Your task to perform on an android device: find snoozed emails in the gmail app Image 0: 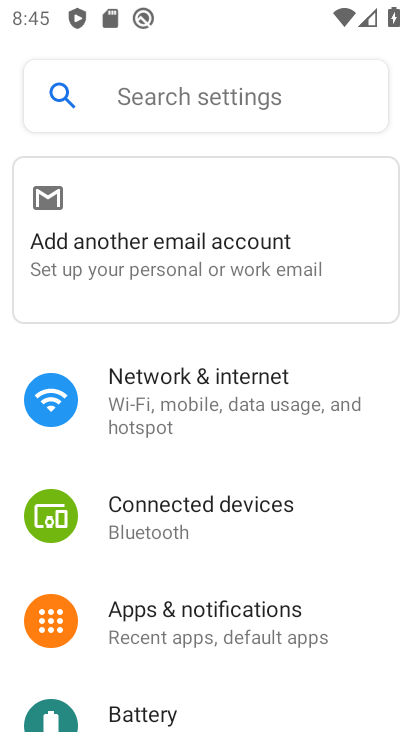
Step 0: press home button
Your task to perform on an android device: find snoozed emails in the gmail app Image 1: 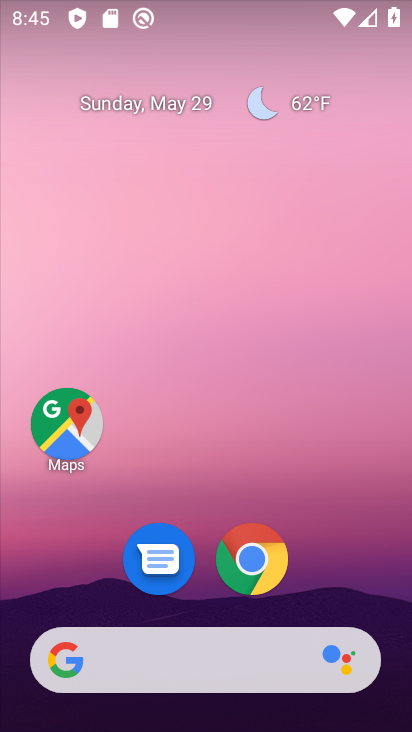
Step 1: drag from (331, 593) to (320, 238)
Your task to perform on an android device: find snoozed emails in the gmail app Image 2: 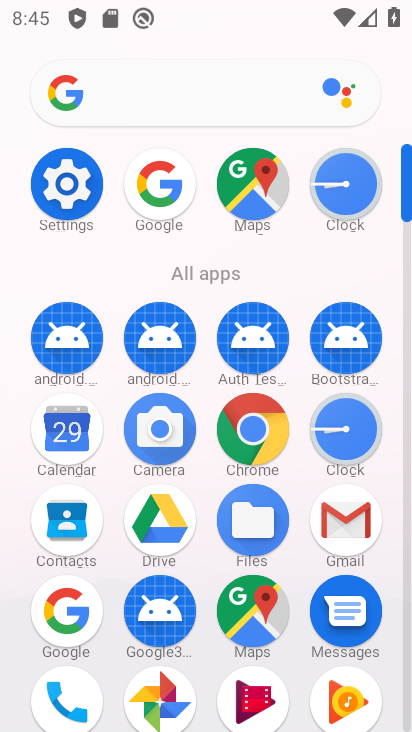
Step 2: click (335, 521)
Your task to perform on an android device: find snoozed emails in the gmail app Image 3: 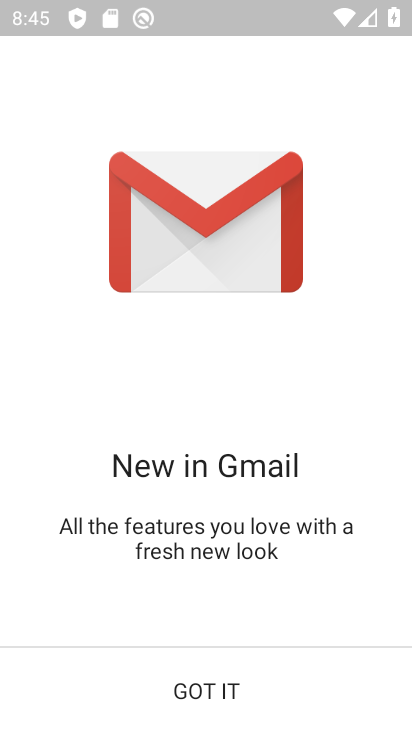
Step 3: click (220, 689)
Your task to perform on an android device: find snoozed emails in the gmail app Image 4: 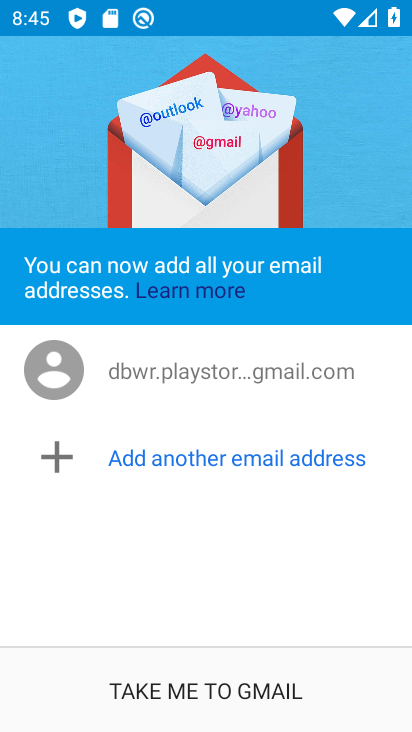
Step 4: click (221, 687)
Your task to perform on an android device: find snoozed emails in the gmail app Image 5: 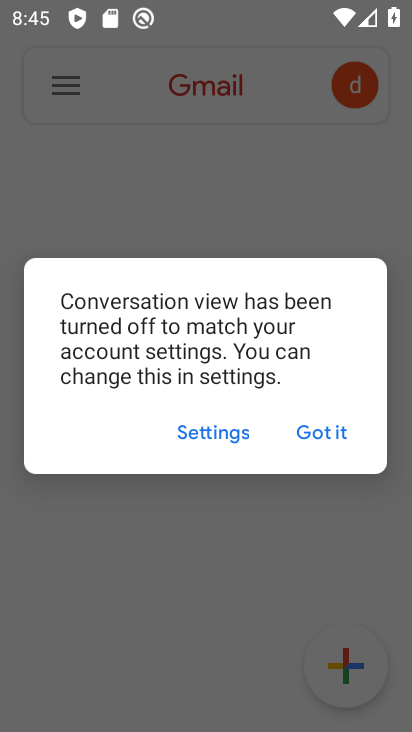
Step 5: click (317, 439)
Your task to perform on an android device: find snoozed emails in the gmail app Image 6: 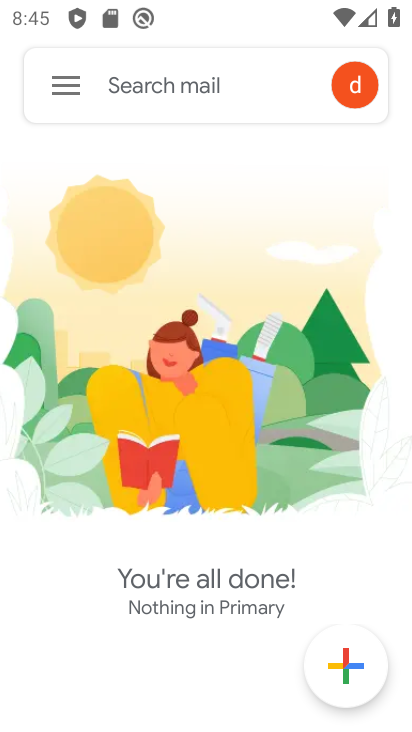
Step 6: click (75, 76)
Your task to perform on an android device: find snoozed emails in the gmail app Image 7: 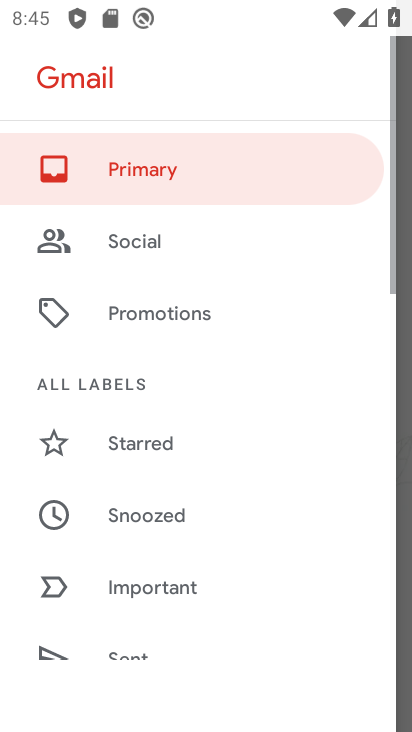
Step 7: drag from (130, 578) to (187, 224)
Your task to perform on an android device: find snoozed emails in the gmail app Image 8: 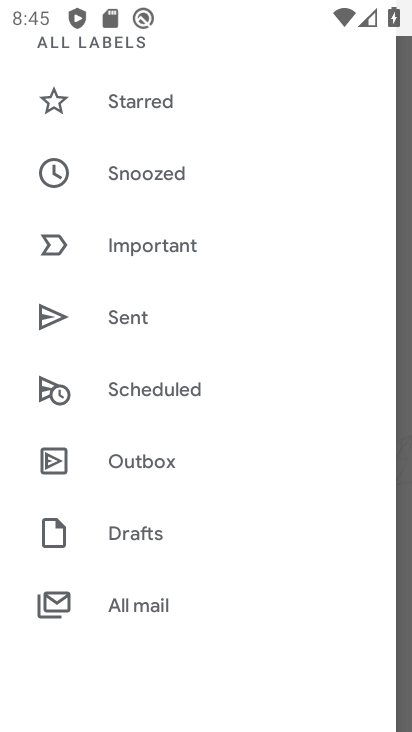
Step 8: drag from (139, 590) to (222, 178)
Your task to perform on an android device: find snoozed emails in the gmail app Image 9: 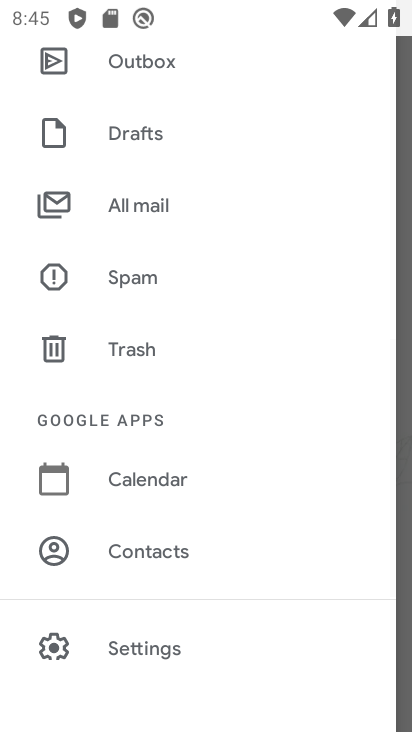
Step 9: drag from (169, 618) to (201, 259)
Your task to perform on an android device: find snoozed emails in the gmail app Image 10: 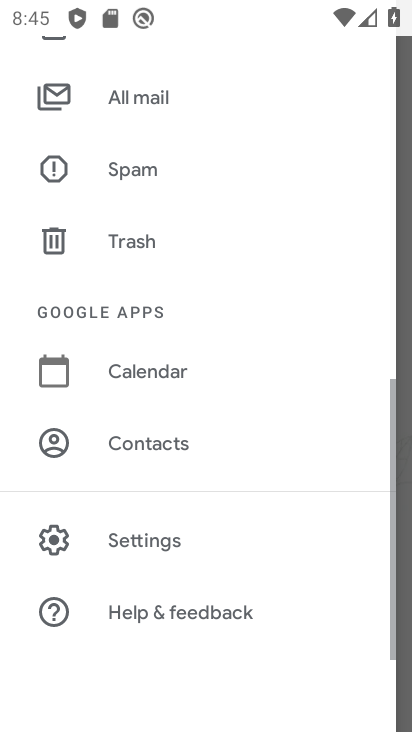
Step 10: click (164, 529)
Your task to perform on an android device: find snoozed emails in the gmail app Image 11: 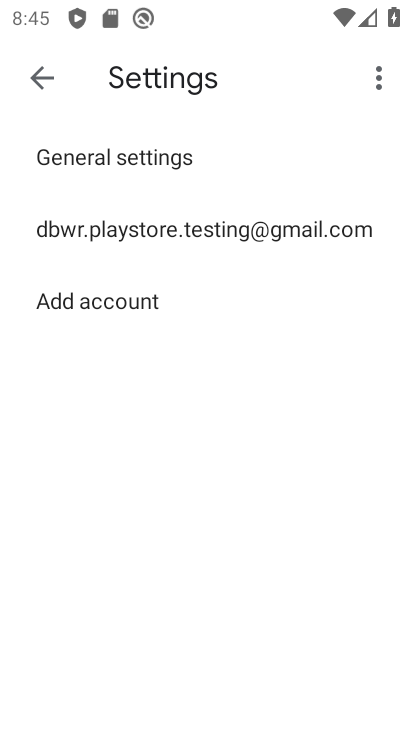
Step 11: click (118, 227)
Your task to perform on an android device: find snoozed emails in the gmail app Image 12: 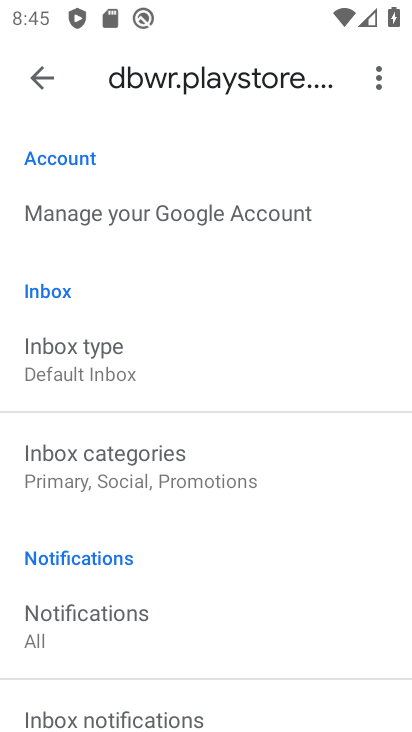
Step 12: drag from (167, 546) to (177, 383)
Your task to perform on an android device: find snoozed emails in the gmail app Image 13: 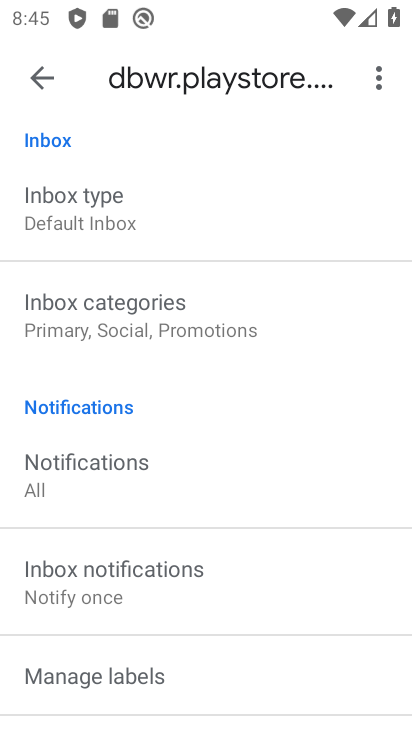
Step 13: drag from (219, 560) to (280, 322)
Your task to perform on an android device: find snoozed emails in the gmail app Image 14: 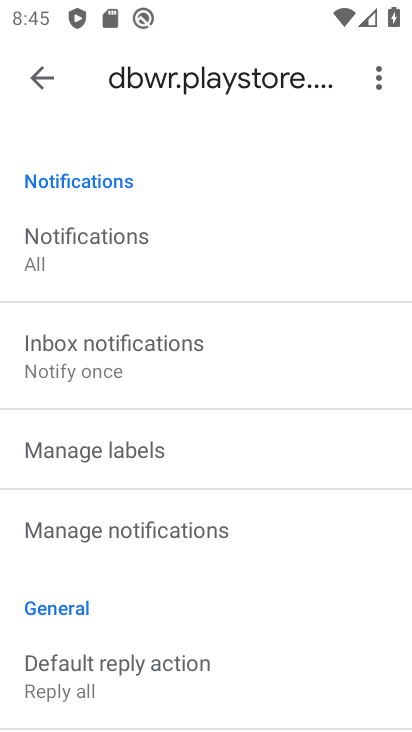
Step 14: drag from (167, 594) to (258, 237)
Your task to perform on an android device: find snoozed emails in the gmail app Image 15: 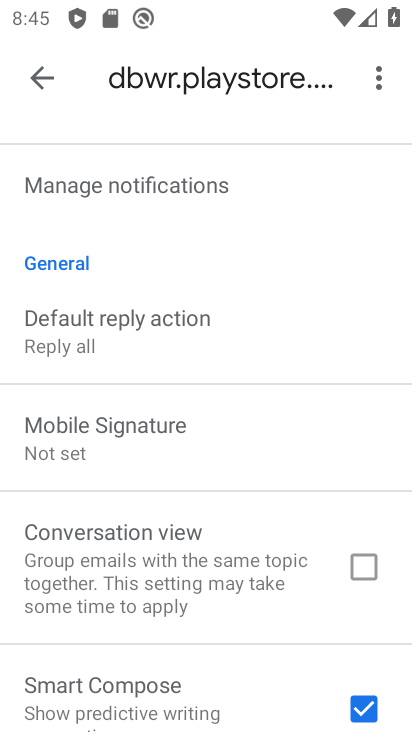
Step 15: drag from (202, 581) to (212, 443)
Your task to perform on an android device: find snoozed emails in the gmail app Image 16: 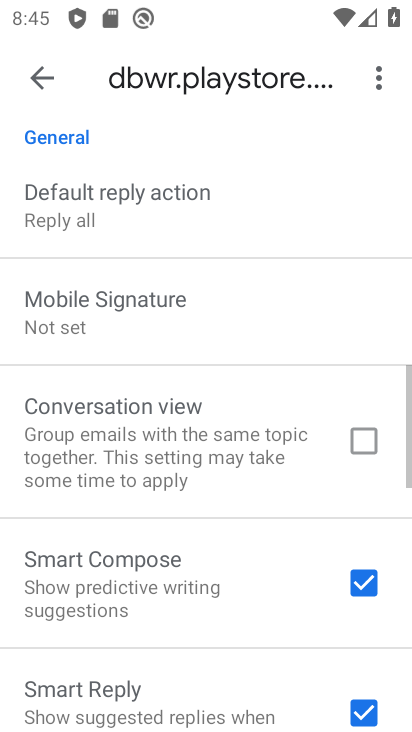
Step 16: click (60, 66)
Your task to perform on an android device: find snoozed emails in the gmail app Image 17: 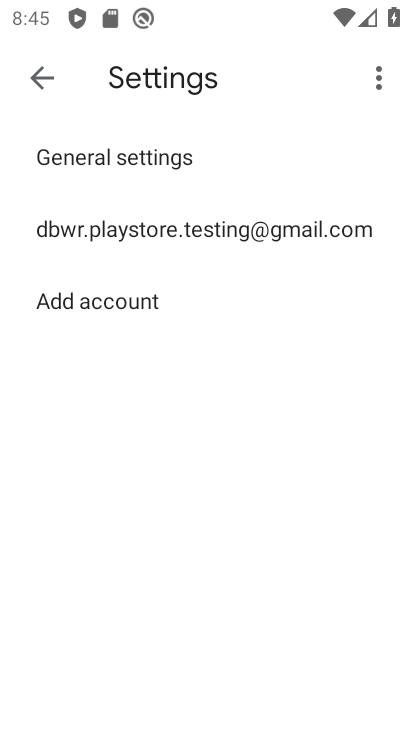
Step 17: click (60, 66)
Your task to perform on an android device: find snoozed emails in the gmail app Image 18: 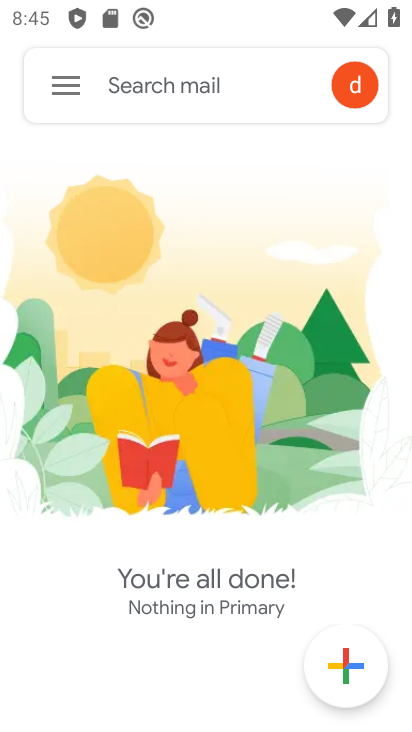
Step 18: click (51, 83)
Your task to perform on an android device: find snoozed emails in the gmail app Image 19: 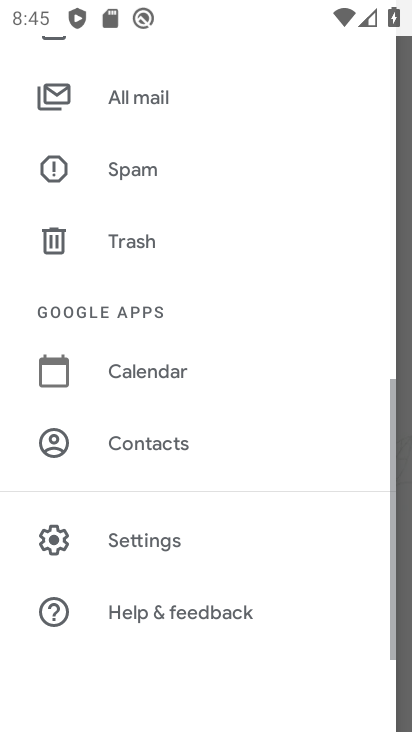
Step 19: drag from (136, 244) to (111, 641)
Your task to perform on an android device: find snoozed emails in the gmail app Image 20: 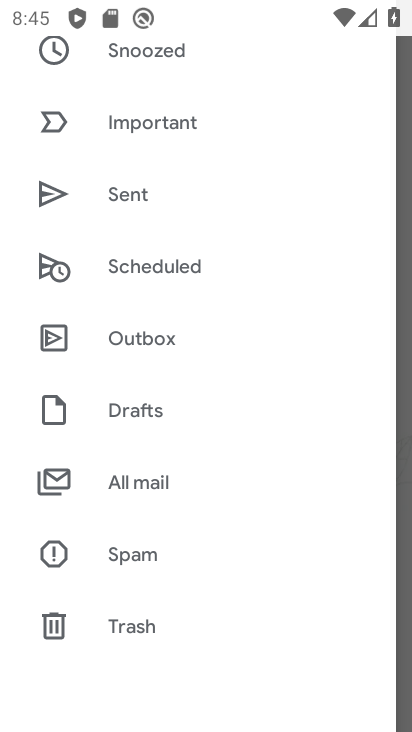
Step 20: drag from (144, 201) to (157, 489)
Your task to perform on an android device: find snoozed emails in the gmail app Image 21: 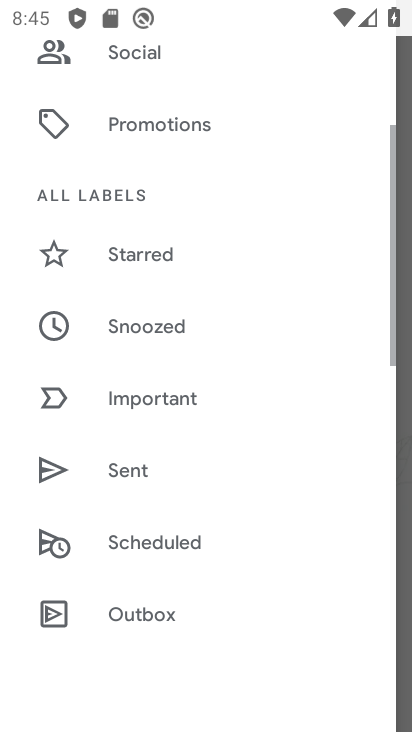
Step 21: click (134, 59)
Your task to perform on an android device: find snoozed emails in the gmail app Image 22: 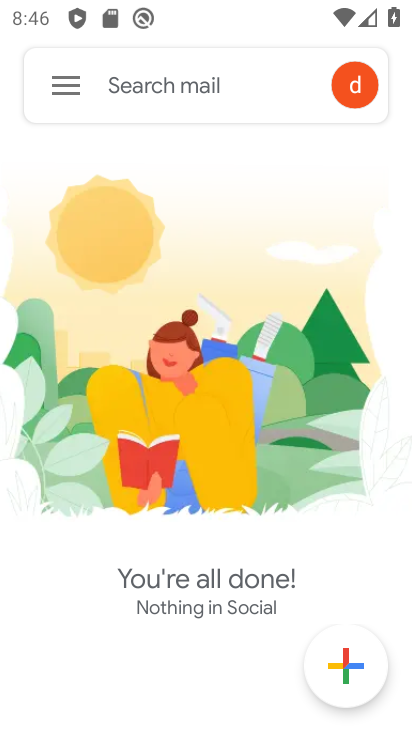
Step 22: click (67, 88)
Your task to perform on an android device: find snoozed emails in the gmail app Image 23: 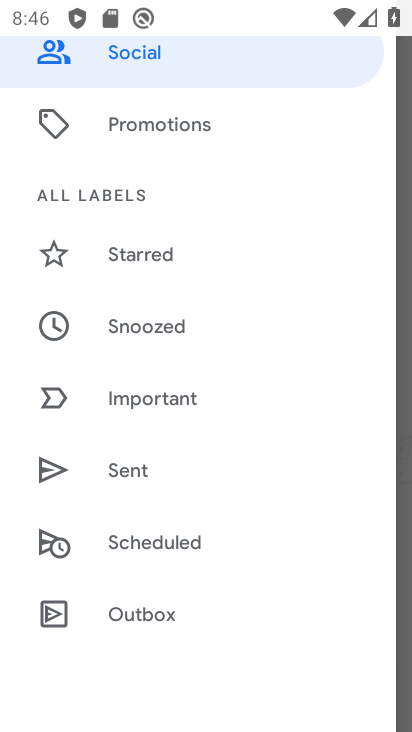
Step 23: click (176, 320)
Your task to perform on an android device: find snoozed emails in the gmail app Image 24: 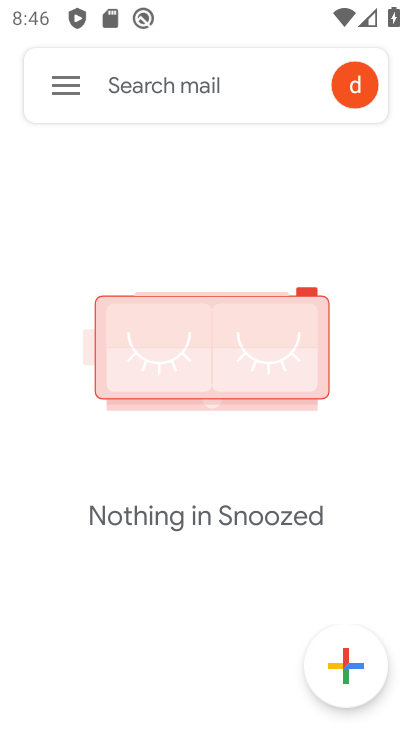
Step 24: task complete